Your task to perform on an android device: Show the shopping cart on bestbuy.com. Image 0: 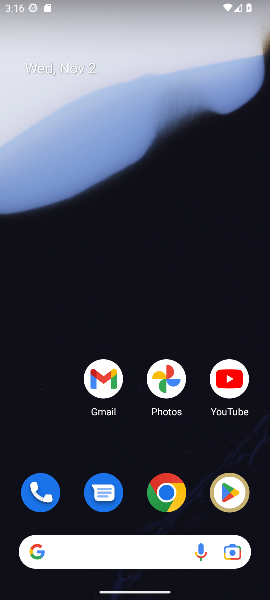
Step 0: click (162, 492)
Your task to perform on an android device: Show the shopping cart on bestbuy.com. Image 1: 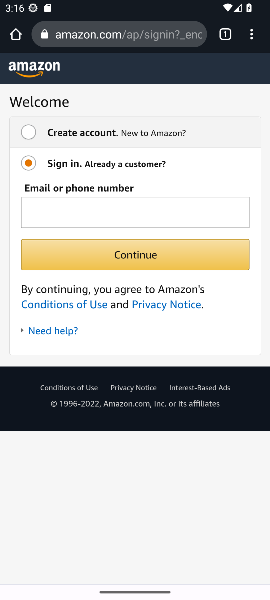
Step 1: click (133, 23)
Your task to perform on an android device: Show the shopping cart on bestbuy.com. Image 2: 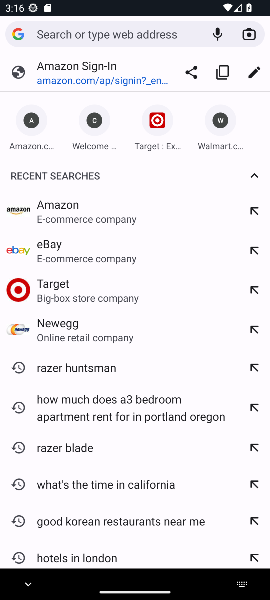
Step 2: type "bestbuy.com"
Your task to perform on an android device: Show the shopping cart on bestbuy.com. Image 3: 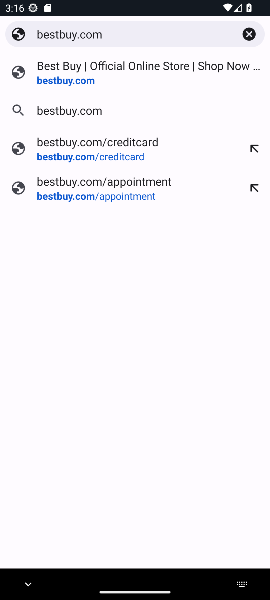
Step 3: click (65, 68)
Your task to perform on an android device: Show the shopping cart on bestbuy.com. Image 4: 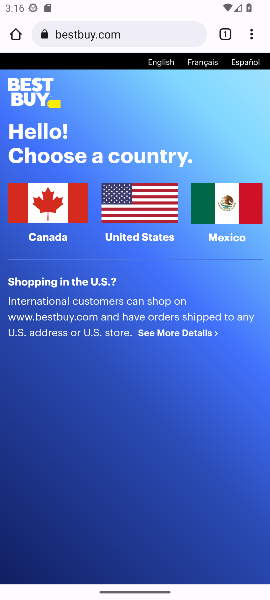
Step 4: click (129, 211)
Your task to perform on an android device: Show the shopping cart on bestbuy.com. Image 5: 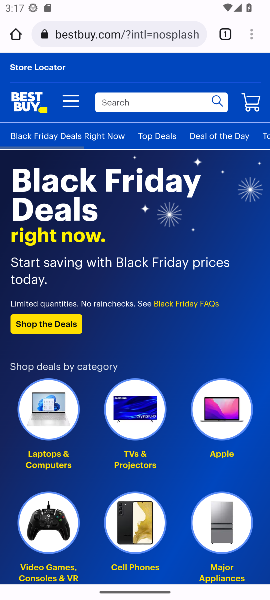
Step 5: click (126, 101)
Your task to perform on an android device: Show the shopping cart on bestbuy.com. Image 6: 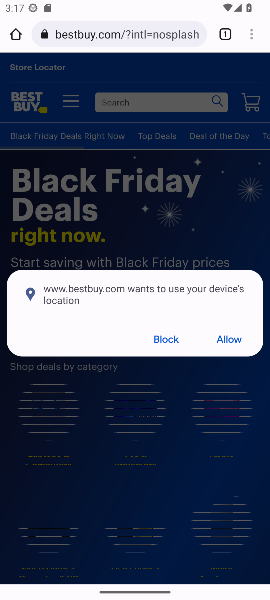
Step 6: click (225, 341)
Your task to perform on an android device: Show the shopping cart on bestbuy.com. Image 7: 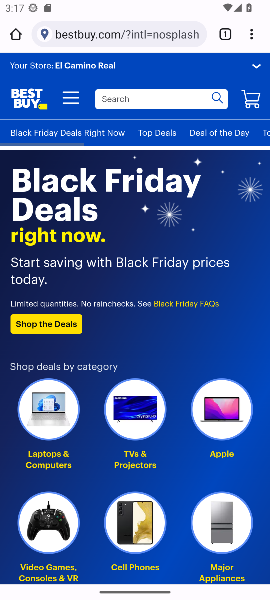
Step 7: click (133, 97)
Your task to perform on an android device: Show the shopping cart on bestbuy.com. Image 8: 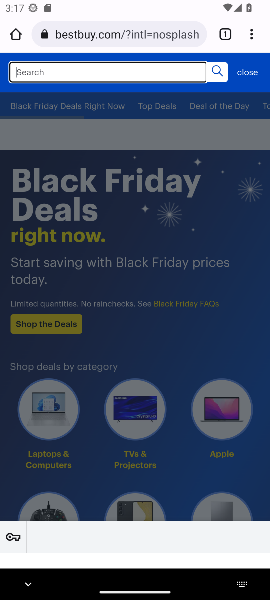
Step 8: click (242, 72)
Your task to perform on an android device: Show the shopping cart on bestbuy.com. Image 9: 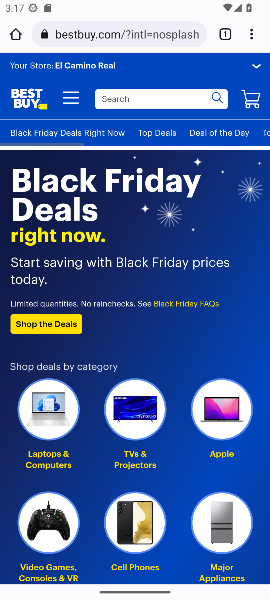
Step 9: click (250, 96)
Your task to perform on an android device: Show the shopping cart on bestbuy.com. Image 10: 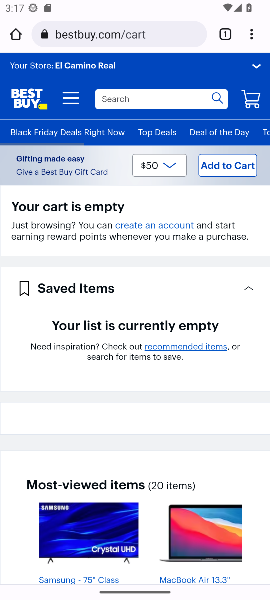
Step 10: task complete